Your task to perform on an android device: Do I have any events this weekend? Image 0: 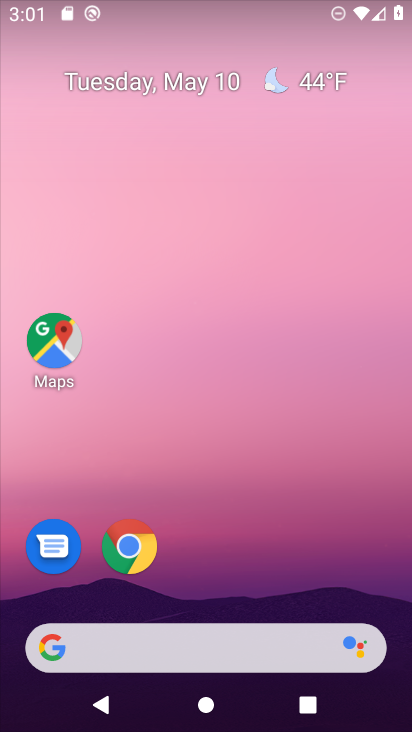
Step 0: drag from (190, 621) to (225, 44)
Your task to perform on an android device: Do I have any events this weekend? Image 1: 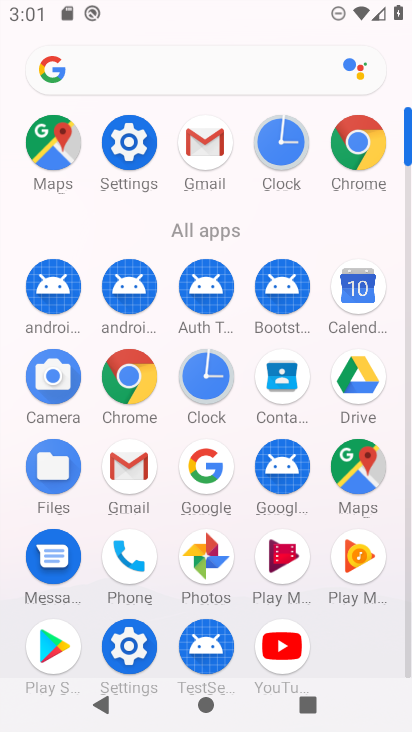
Step 1: click (296, 378)
Your task to perform on an android device: Do I have any events this weekend? Image 2: 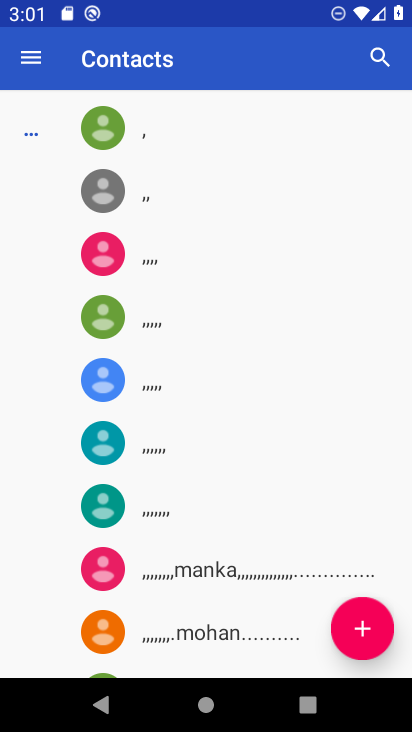
Step 2: press back button
Your task to perform on an android device: Do I have any events this weekend? Image 3: 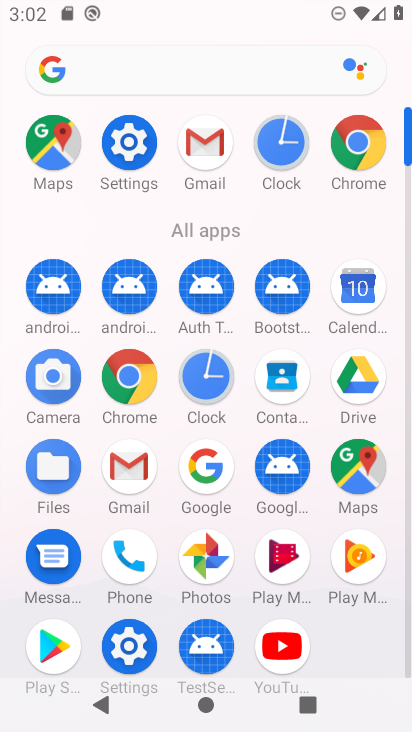
Step 3: click (348, 301)
Your task to perform on an android device: Do I have any events this weekend? Image 4: 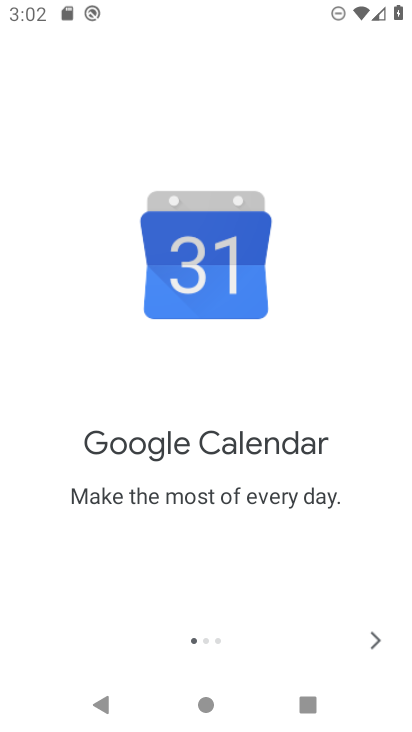
Step 4: click (383, 638)
Your task to perform on an android device: Do I have any events this weekend? Image 5: 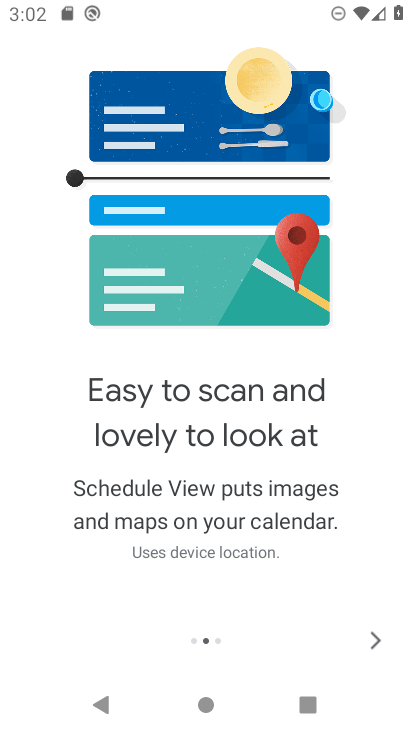
Step 5: click (368, 630)
Your task to perform on an android device: Do I have any events this weekend? Image 6: 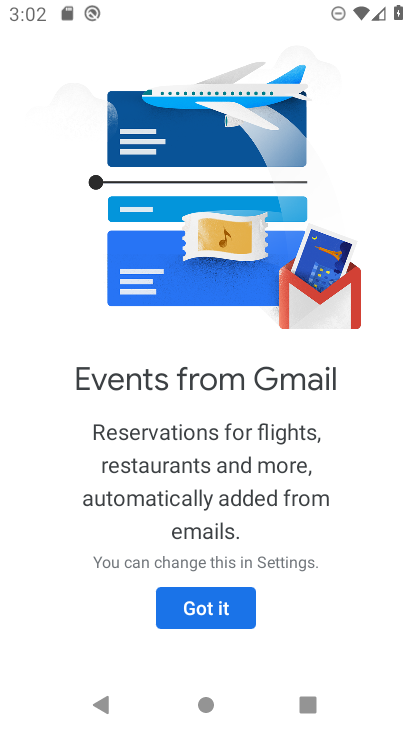
Step 6: click (252, 601)
Your task to perform on an android device: Do I have any events this weekend? Image 7: 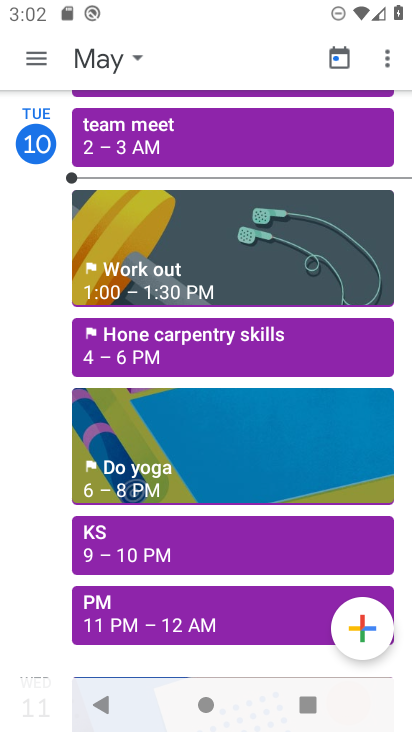
Step 7: task complete